Your task to perform on an android device: open app "DoorDash - Food Delivery" (install if not already installed), go to login, and select forgot password Image 0: 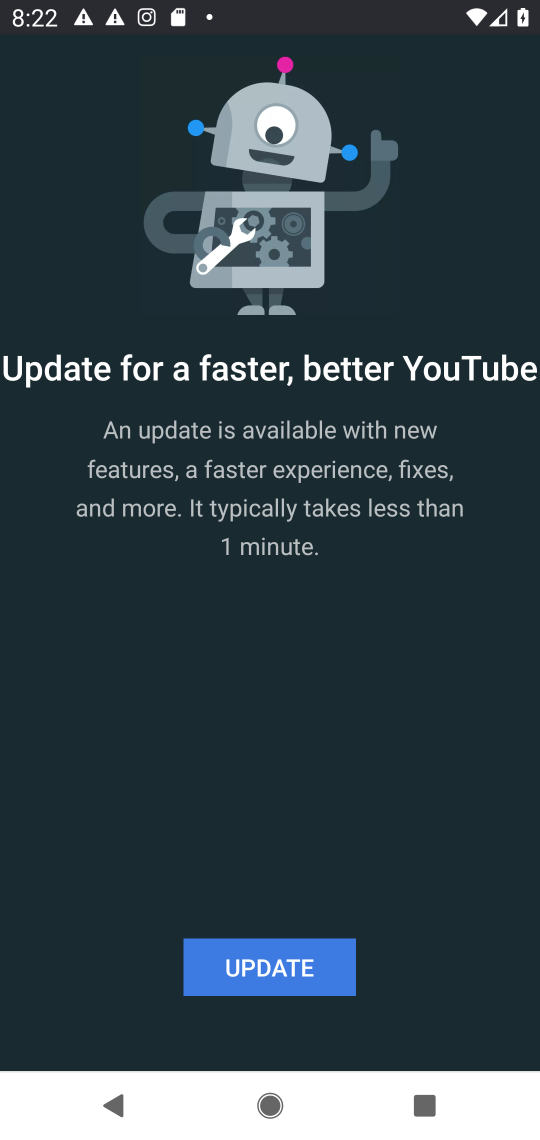
Step 0: press home button
Your task to perform on an android device: open app "DoorDash - Food Delivery" (install if not already installed), go to login, and select forgot password Image 1: 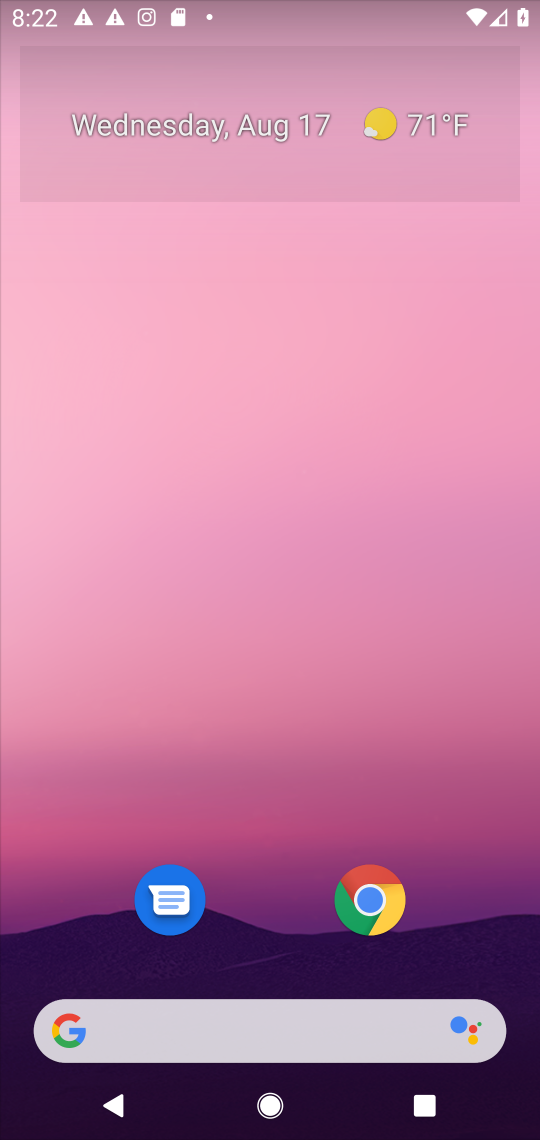
Step 1: drag from (323, 924) to (360, 24)
Your task to perform on an android device: open app "DoorDash - Food Delivery" (install if not already installed), go to login, and select forgot password Image 2: 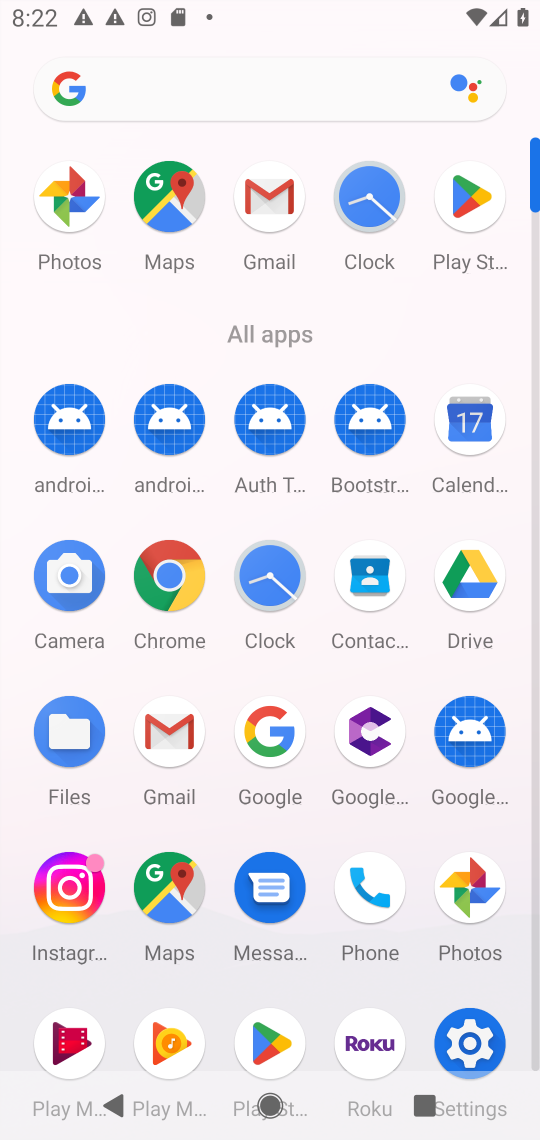
Step 2: click (482, 196)
Your task to perform on an android device: open app "DoorDash - Food Delivery" (install if not already installed), go to login, and select forgot password Image 3: 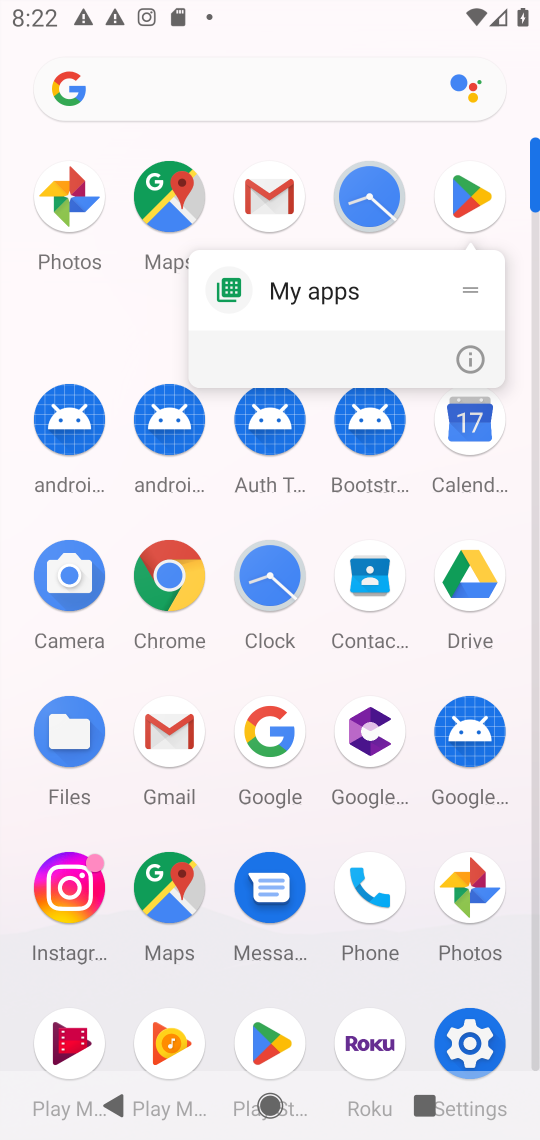
Step 3: click (477, 193)
Your task to perform on an android device: open app "DoorDash - Food Delivery" (install if not already installed), go to login, and select forgot password Image 4: 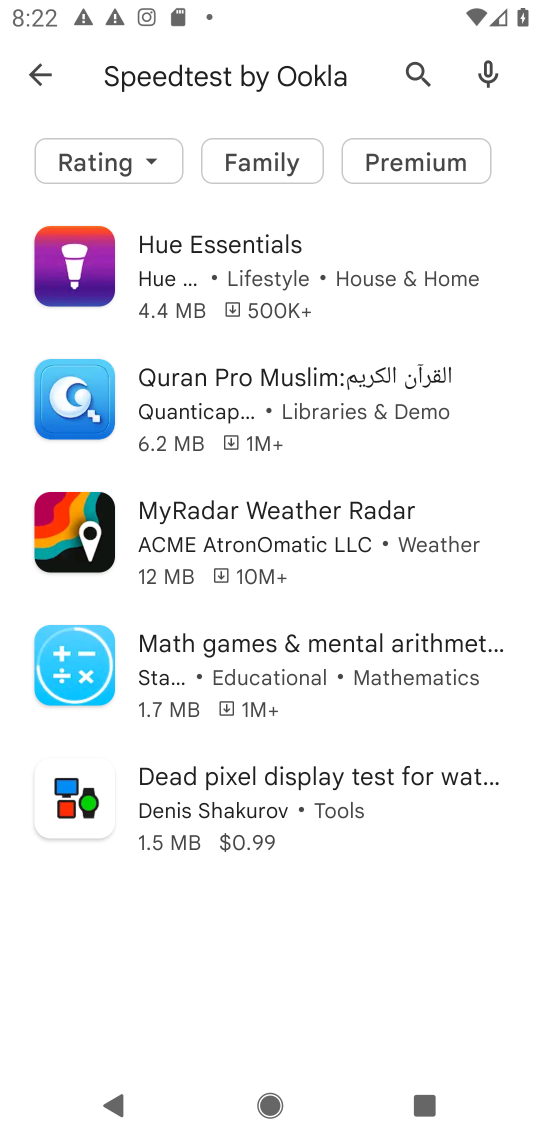
Step 4: click (27, 70)
Your task to perform on an android device: open app "DoorDash - Food Delivery" (install if not already installed), go to login, and select forgot password Image 5: 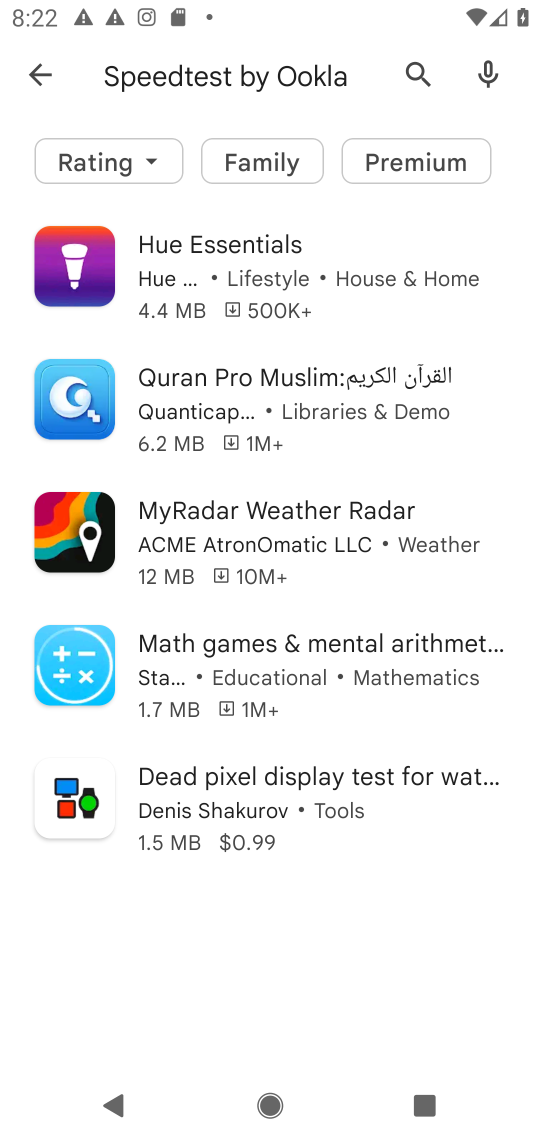
Step 5: click (45, 79)
Your task to perform on an android device: open app "DoorDash - Food Delivery" (install if not already installed), go to login, and select forgot password Image 6: 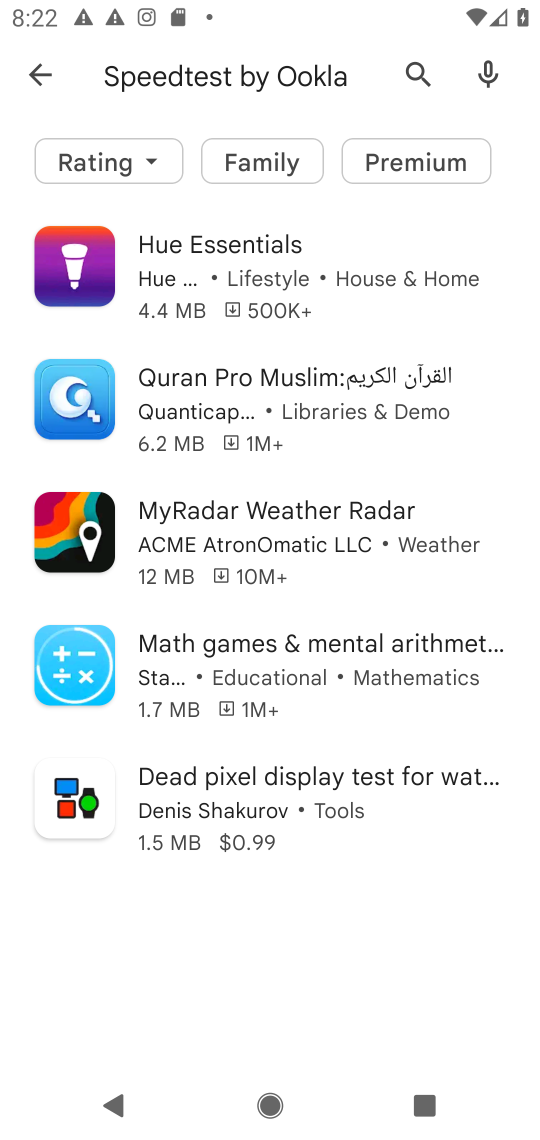
Step 6: press back button
Your task to perform on an android device: open app "DoorDash - Food Delivery" (install if not already installed), go to login, and select forgot password Image 7: 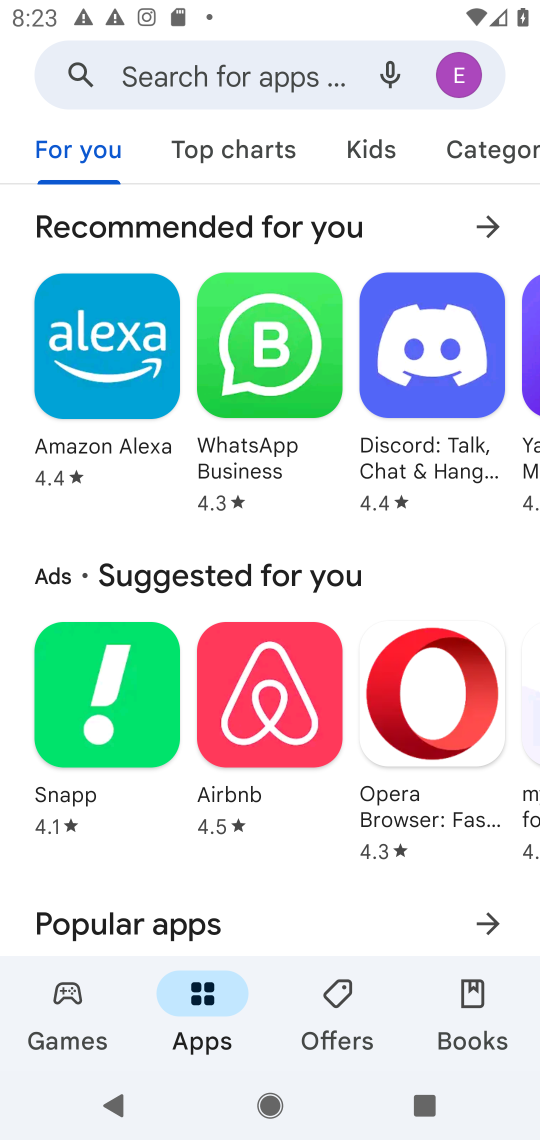
Step 7: click (233, 90)
Your task to perform on an android device: open app "DoorDash - Food Delivery" (install if not already installed), go to login, and select forgot password Image 8: 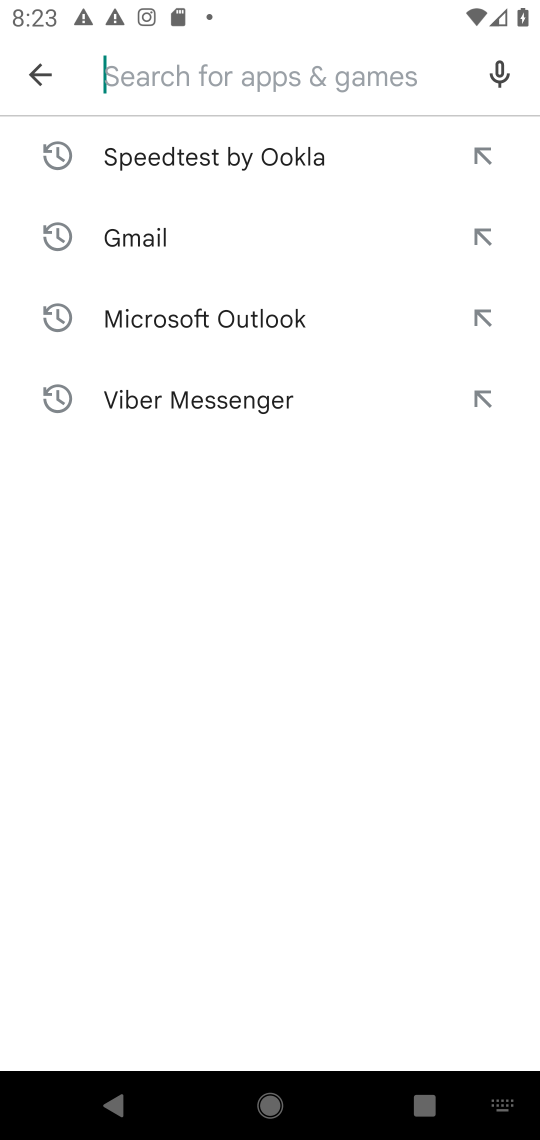
Step 8: type "DoorDash - Food Delivery"
Your task to perform on an android device: open app "DoorDash - Food Delivery" (install if not already installed), go to login, and select forgot password Image 9: 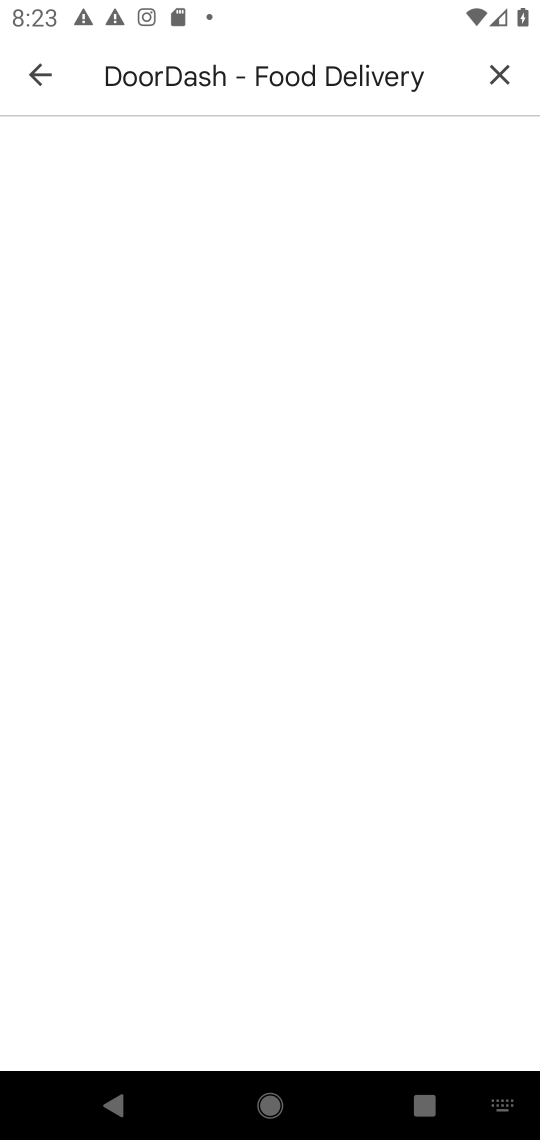
Step 9: press enter
Your task to perform on an android device: open app "DoorDash - Food Delivery" (install if not already installed), go to login, and select forgot password Image 10: 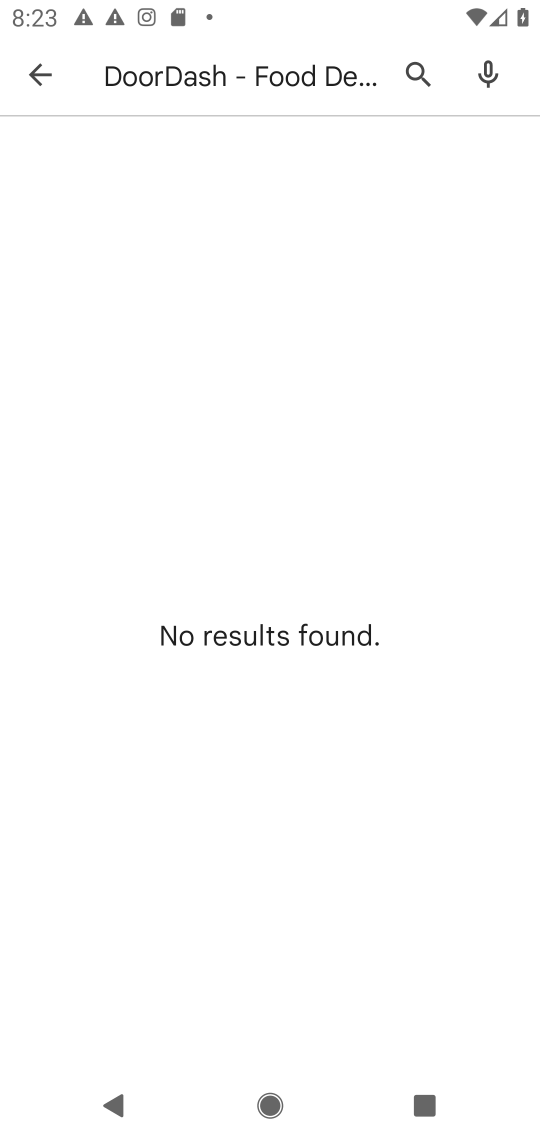
Step 10: task complete